Your task to perform on an android device: Open Google Chrome Image 0: 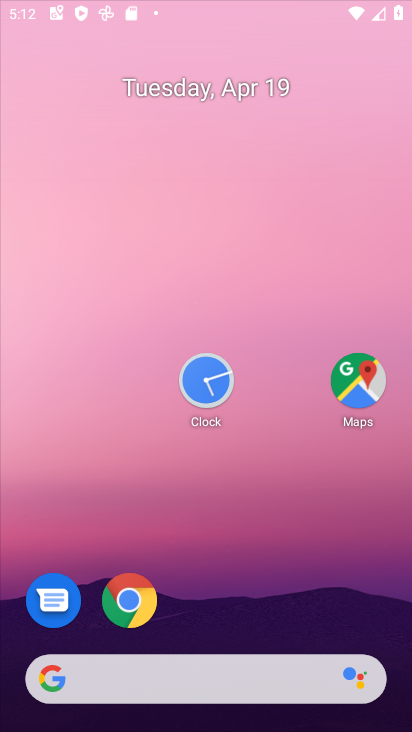
Step 0: drag from (301, 561) to (172, 86)
Your task to perform on an android device: Open Google Chrome Image 1: 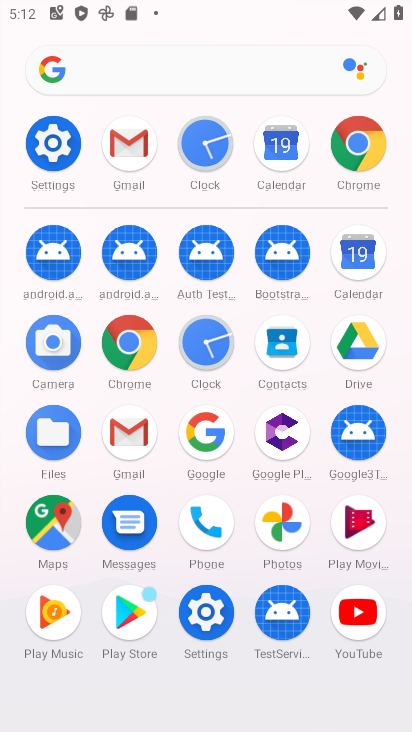
Step 1: drag from (250, 628) to (127, 196)
Your task to perform on an android device: Open Google Chrome Image 2: 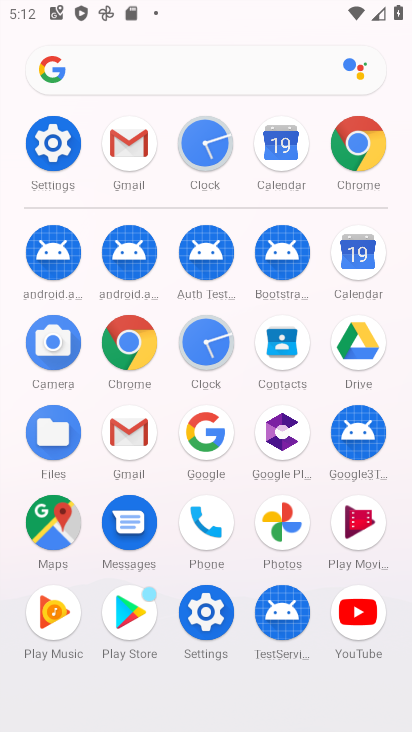
Step 2: click (369, 137)
Your task to perform on an android device: Open Google Chrome Image 3: 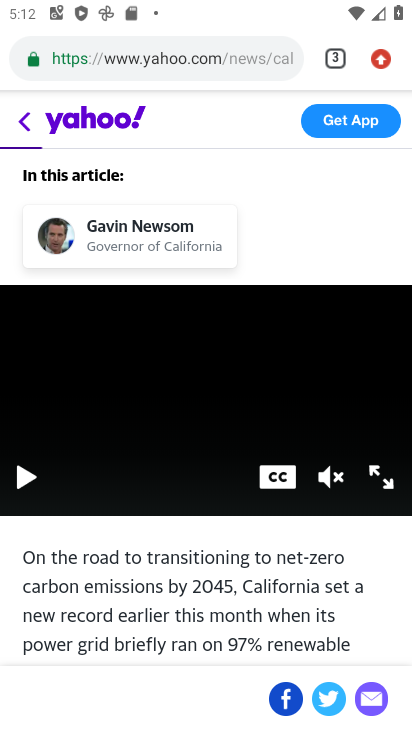
Step 3: task complete